Your task to perform on an android device: all mails in gmail Image 0: 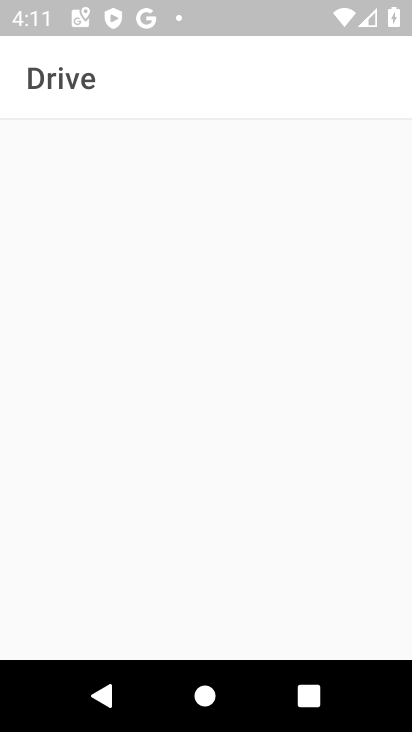
Step 0: drag from (349, 474) to (282, 23)
Your task to perform on an android device: all mails in gmail Image 1: 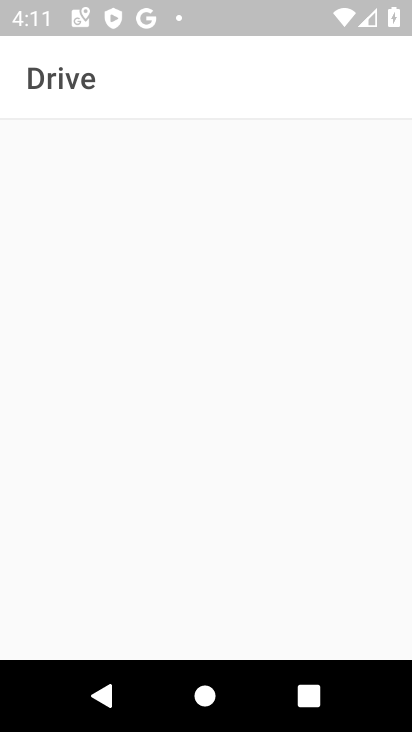
Step 1: press home button
Your task to perform on an android device: all mails in gmail Image 2: 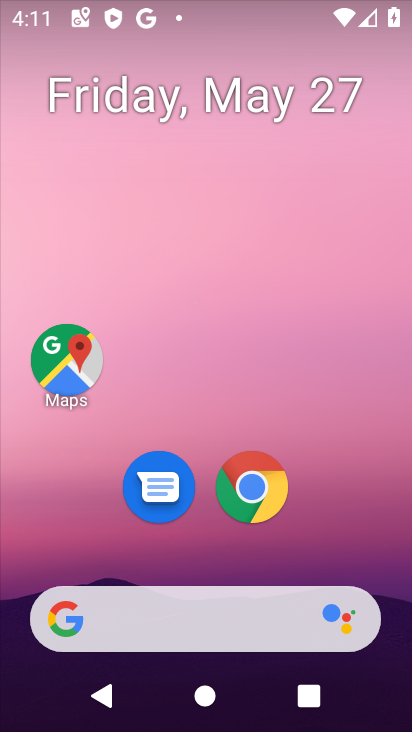
Step 2: drag from (371, 503) to (285, 124)
Your task to perform on an android device: all mails in gmail Image 3: 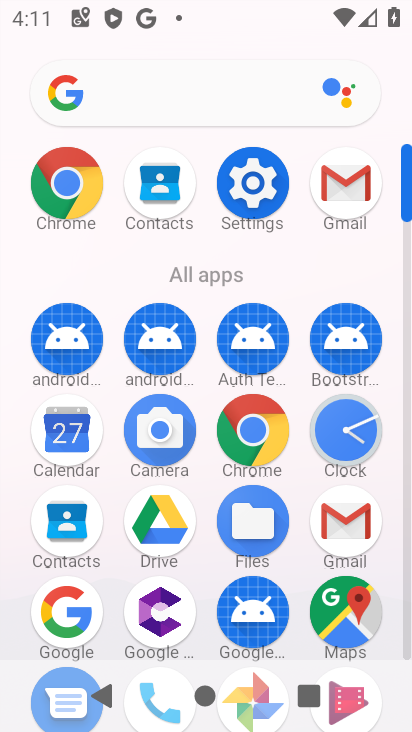
Step 3: click (350, 194)
Your task to perform on an android device: all mails in gmail Image 4: 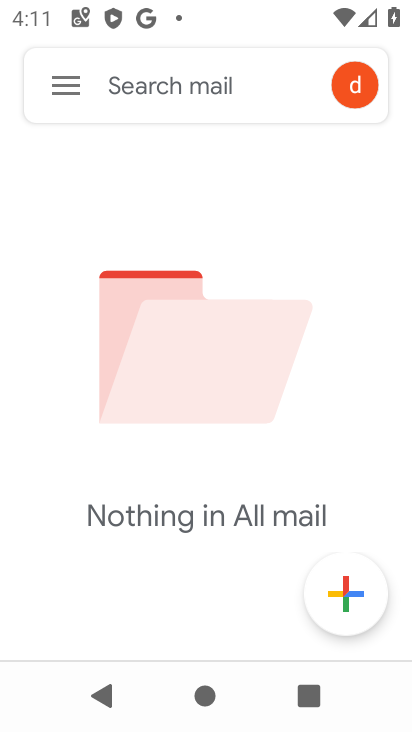
Step 4: task complete